Your task to perform on an android device: Open Google Chrome Image 0: 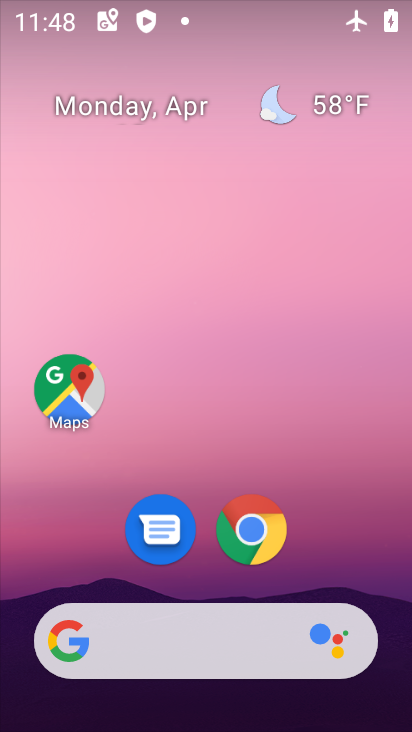
Step 0: click (276, 530)
Your task to perform on an android device: Open Google Chrome Image 1: 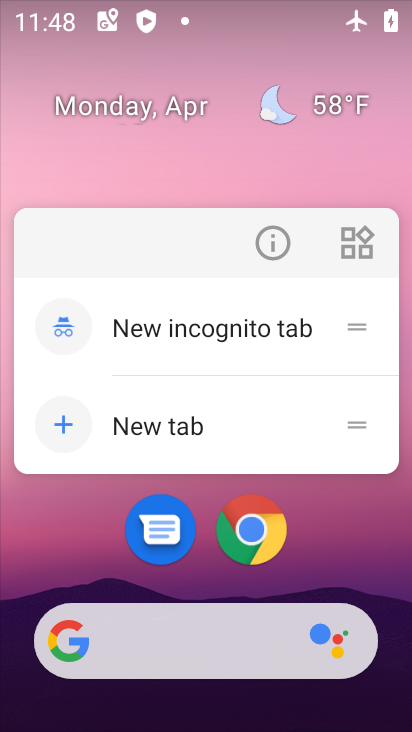
Step 1: click (276, 530)
Your task to perform on an android device: Open Google Chrome Image 2: 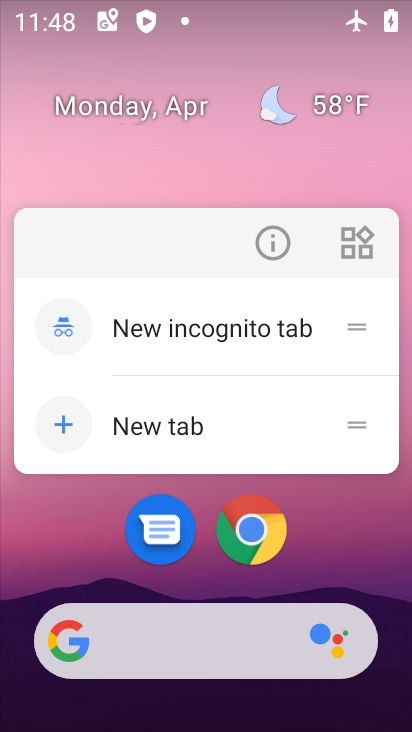
Step 2: click (276, 530)
Your task to perform on an android device: Open Google Chrome Image 3: 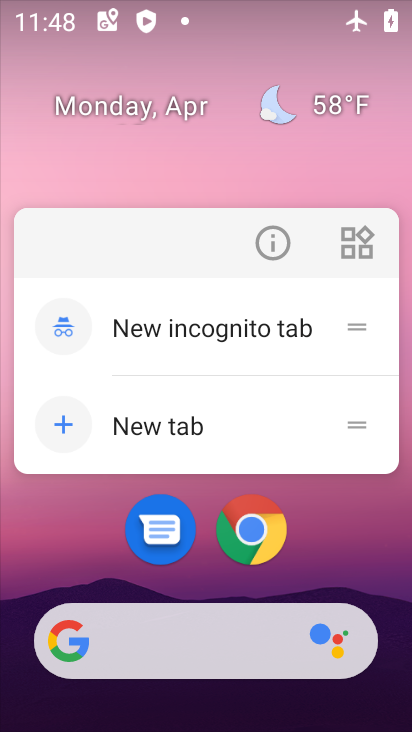
Step 3: click (276, 530)
Your task to perform on an android device: Open Google Chrome Image 4: 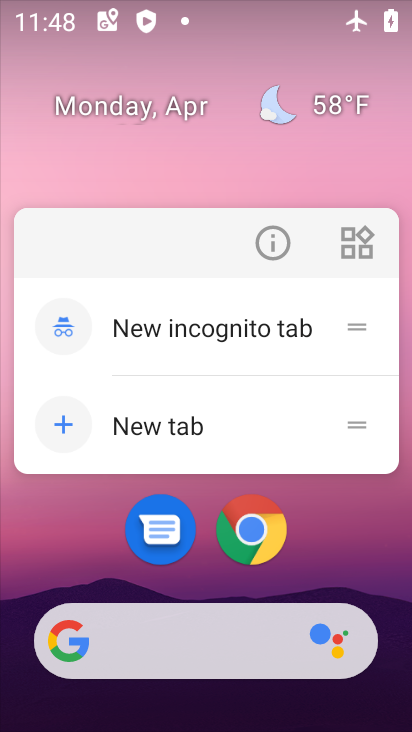
Step 4: click (276, 530)
Your task to perform on an android device: Open Google Chrome Image 5: 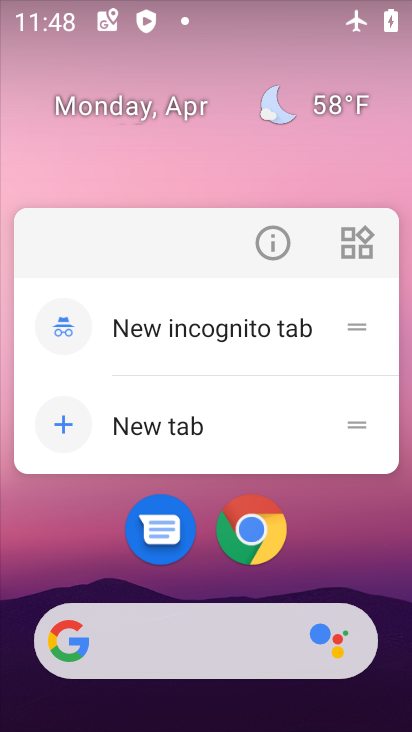
Step 5: click (276, 530)
Your task to perform on an android device: Open Google Chrome Image 6: 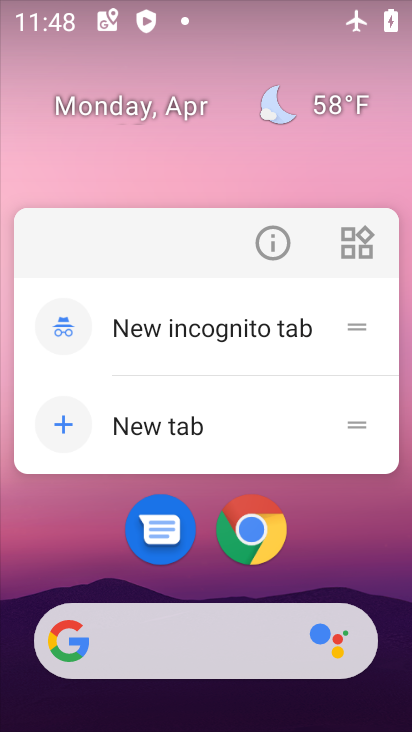
Step 6: click (276, 530)
Your task to perform on an android device: Open Google Chrome Image 7: 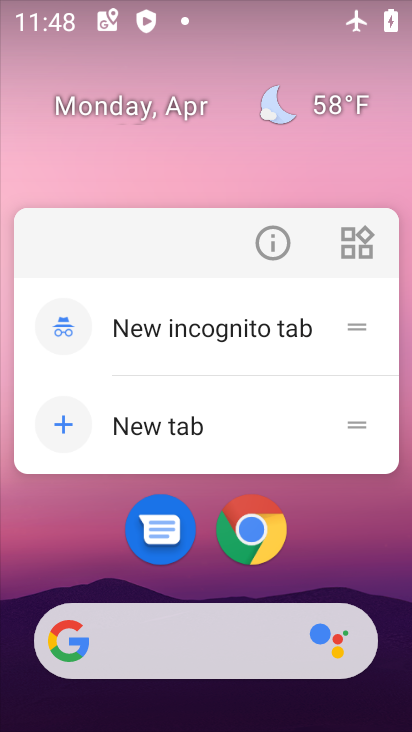
Step 7: click (229, 529)
Your task to perform on an android device: Open Google Chrome Image 8: 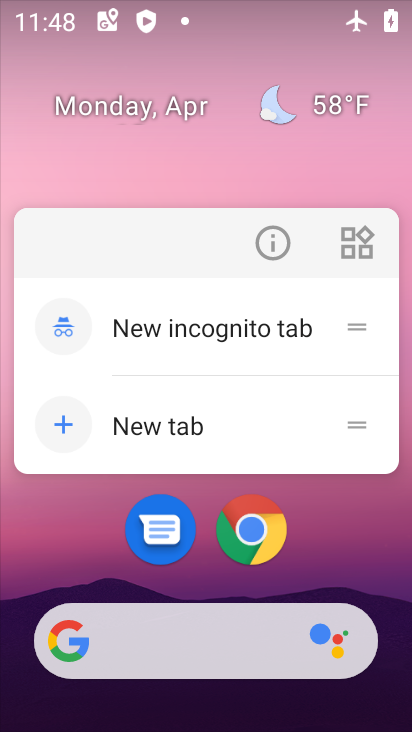
Step 8: click (228, 528)
Your task to perform on an android device: Open Google Chrome Image 9: 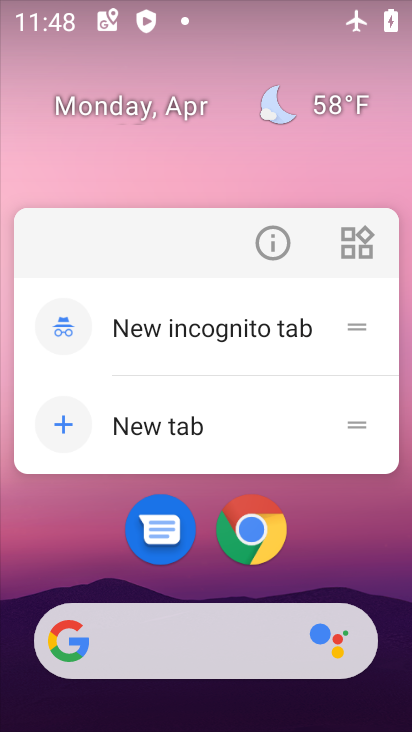
Step 9: click (281, 531)
Your task to perform on an android device: Open Google Chrome Image 10: 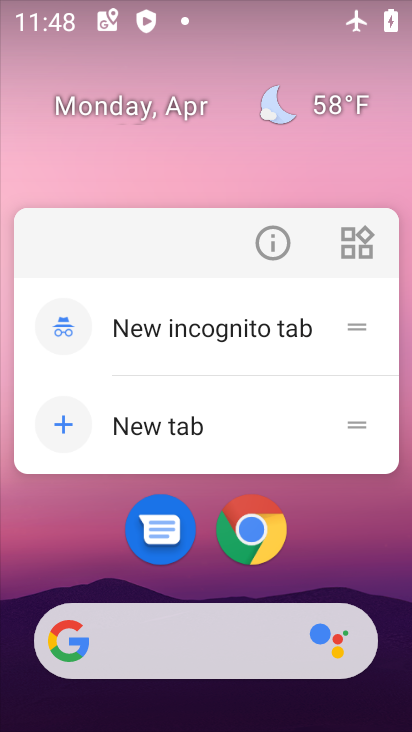
Step 10: click (257, 527)
Your task to perform on an android device: Open Google Chrome Image 11: 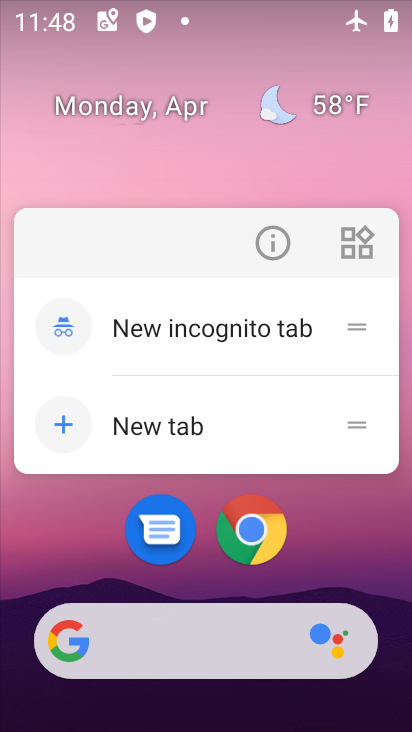
Step 11: click (257, 527)
Your task to perform on an android device: Open Google Chrome Image 12: 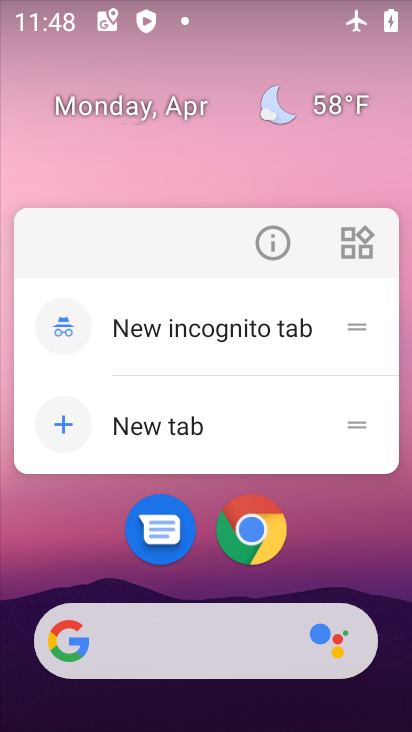
Step 12: click (257, 527)
Your task to perform on an android device: Open Google Chrome Image 13: 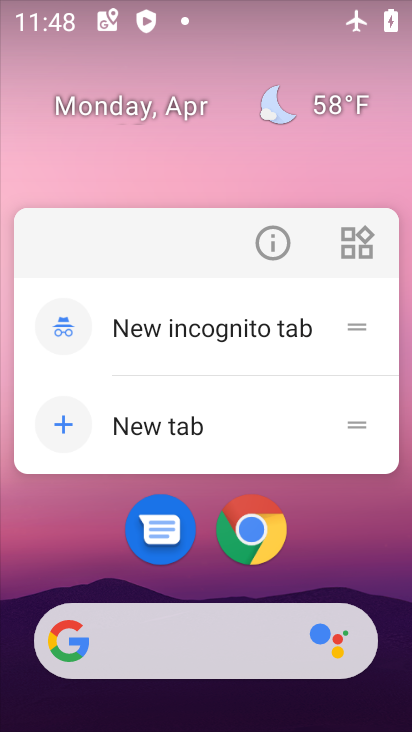
Step 13: click (257, 527)
Your task to perform on an android device: Open Google Chrome Image 14: 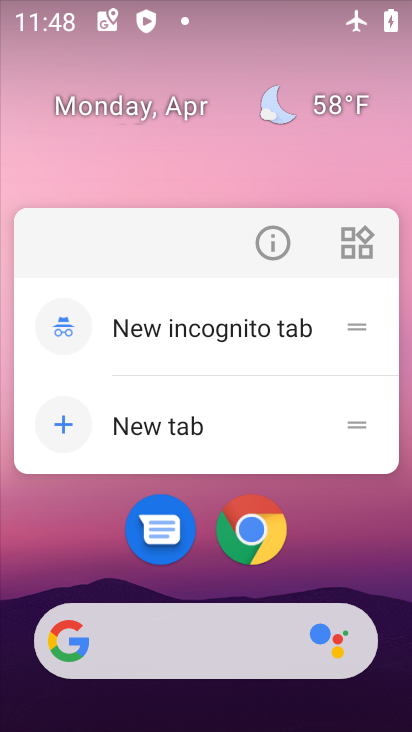
Step 14: click (257, 527)
Your task to perform on an android device: Open Google Chrome Image 15: 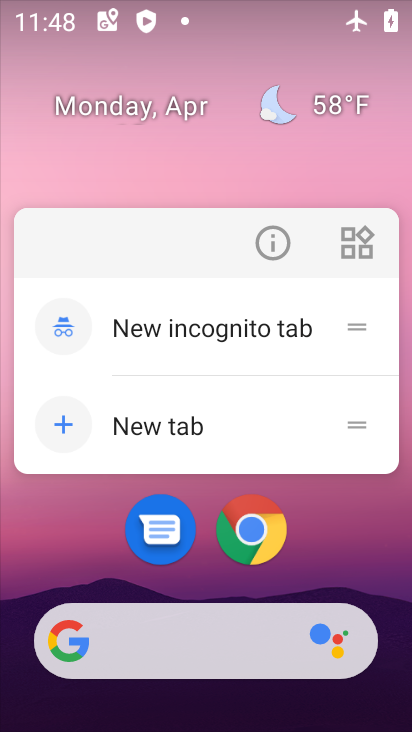
Step 15: click (257, 527)
Your task to perform on an android device: Open Google Chrome Image 16: 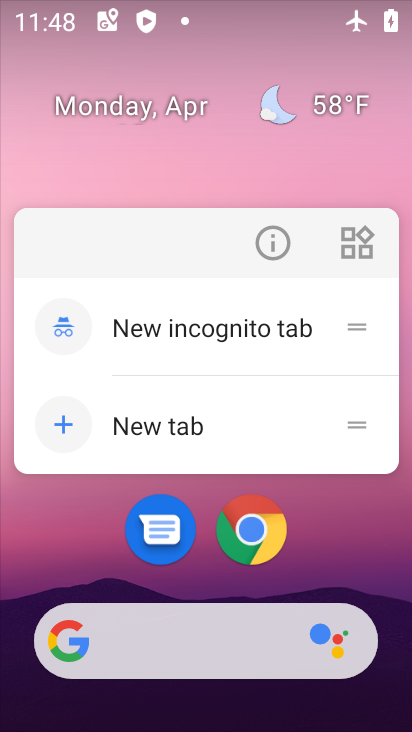
Step 16: click (257, 527)
Your task to perform on an android device: Open Google Chrome Image 17: 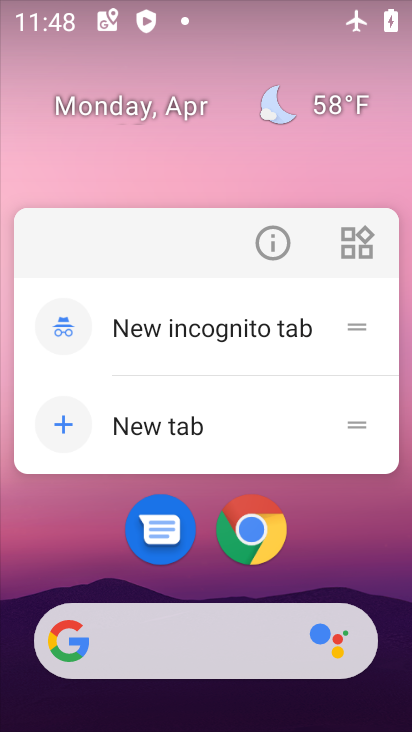
Step 17: click (257, 527)
Your task to perform on an android device: Open Google Chrome Image 18: 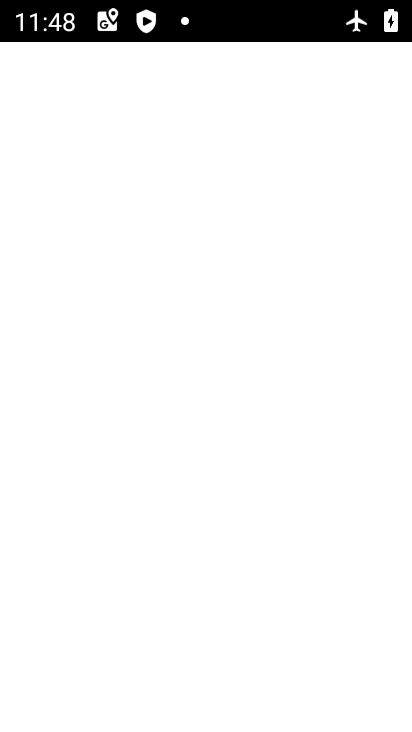
Step 18: click (257, 527)
Your task to perform on an android device: Open Google Chrome Image 19: 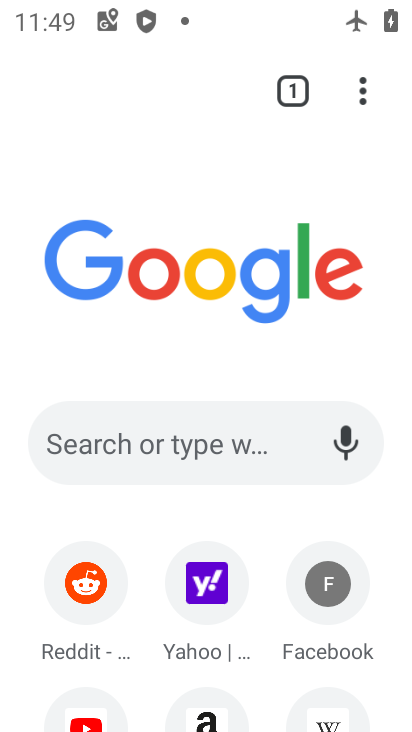
Step 19: task complete